Your task to perform on an android device: change the clock display to show seconds Image 0: 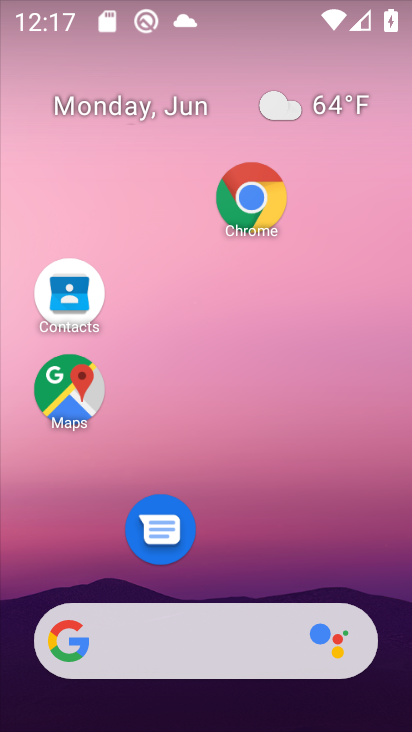
Step 0: drag from (271, 519) to (318, 0)
Your task to perform on an android device: change the clock display to show seconds Image 1: 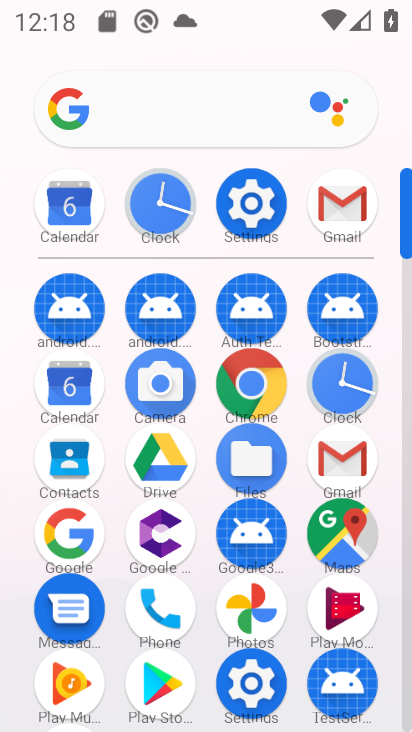
Step 1: click (341, 370)
Your task to perform on an android device: change the clock display to show seconds Image 2: 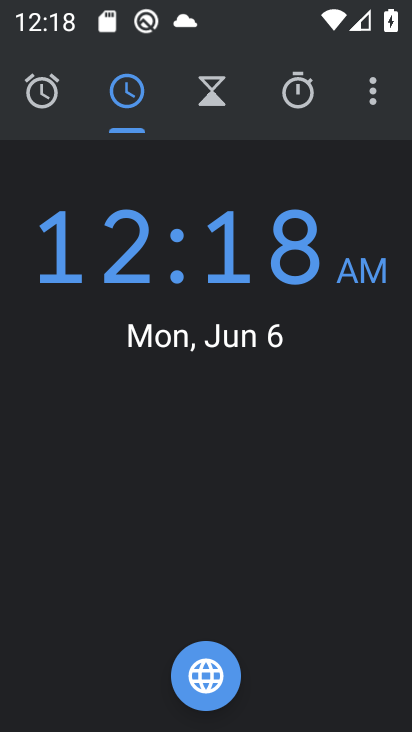
Step 2: click (367, 93)
Your task to perform on an android device: change the clock display to show seconds Image 3: 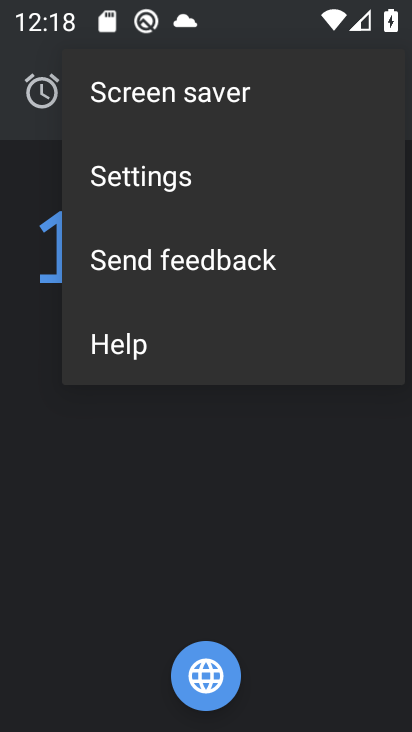
Step 3: click (194, 159)
Your task to perform on an android device: change the clock display to show seconds Image 4: 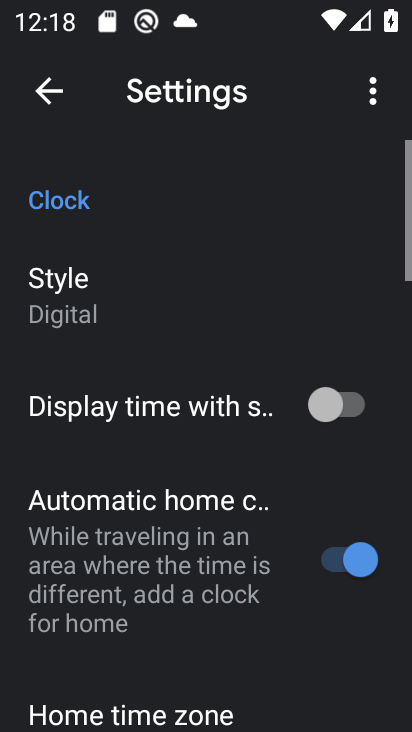
Step 4: click (321, 397)
Your task to perform on an android device: change the clock display to show seconds Image 5: 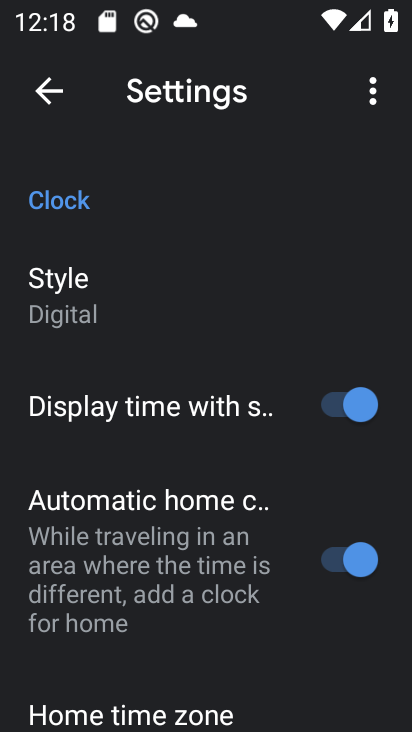
Step 5: task complete